Your task to perform on an android device: What's on my calendar tomorrow? Image 0: 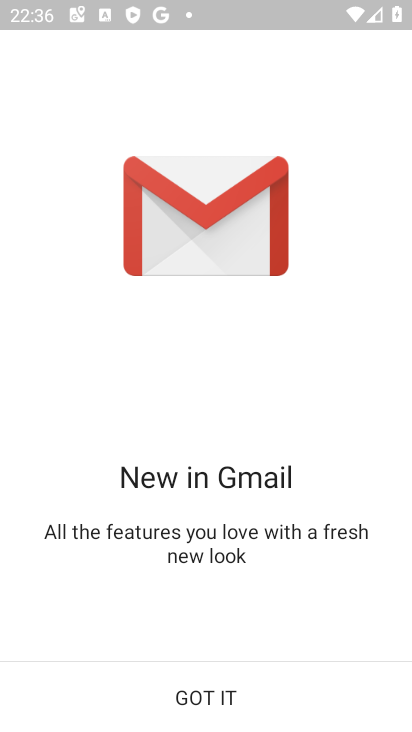
Step 0: press home button
Your task to perform on an android device: What's on my calendar tomorrow? Image 1: 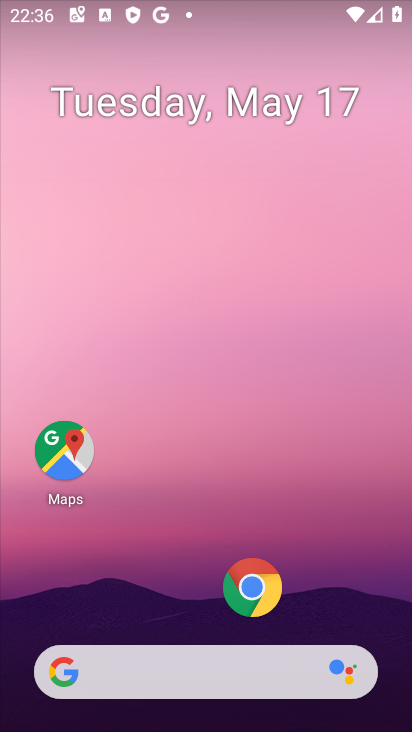
Step 1: drag from (351, 588) to (302, 261)
Your task to perform on an android device: What's on my calendar tomorrow? Image 2: 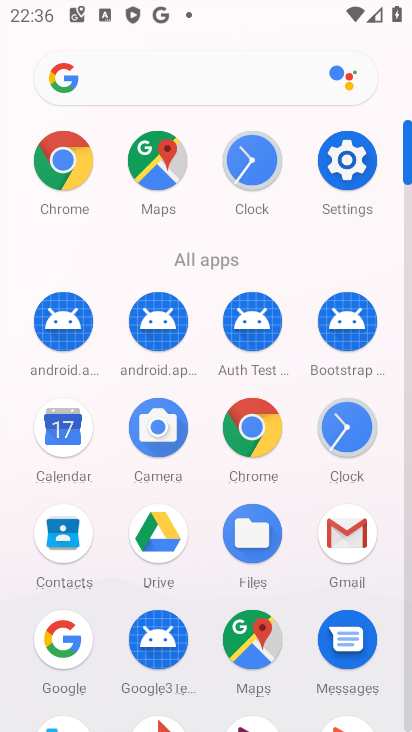
Step 2: click (60, 444)
Your task to perform on an android device: What's on my calendar tomorrow? Image 3: 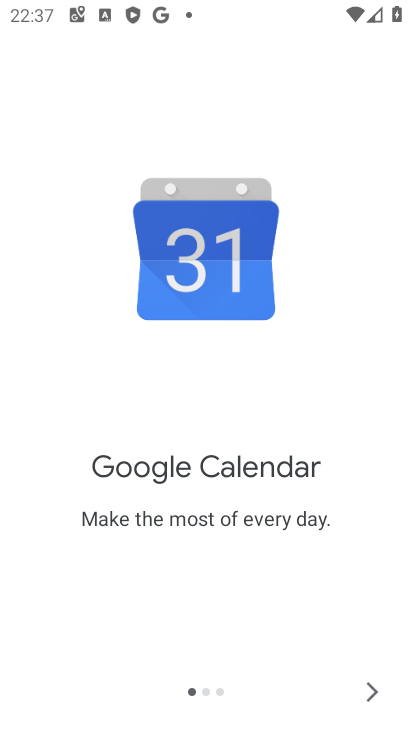
Step 3: click (373, 687)
Your task to perform on an android device: What's on my calendar tomorrow? Image 4: 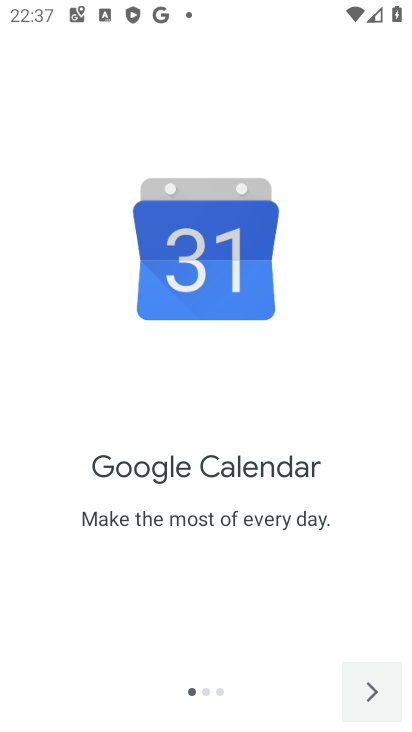
Step 4: click (373, 687)
Your task to perform on an android device: What's on my calendar tomorrow? Image 5: 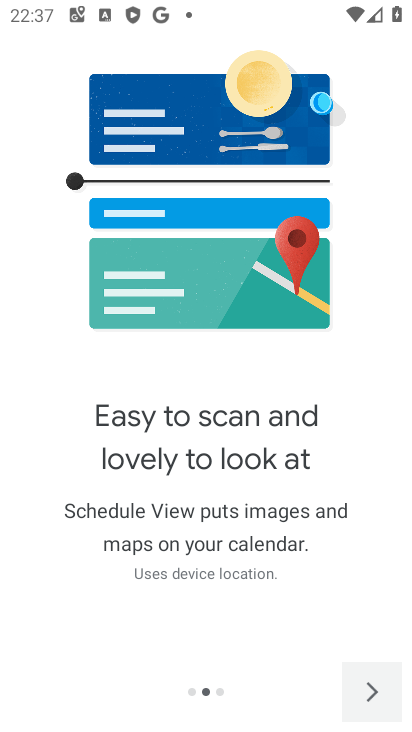
Step 5: click (373, 687)
Your task to perform on an android device: What's on my calendar tomorrow? Image 6: 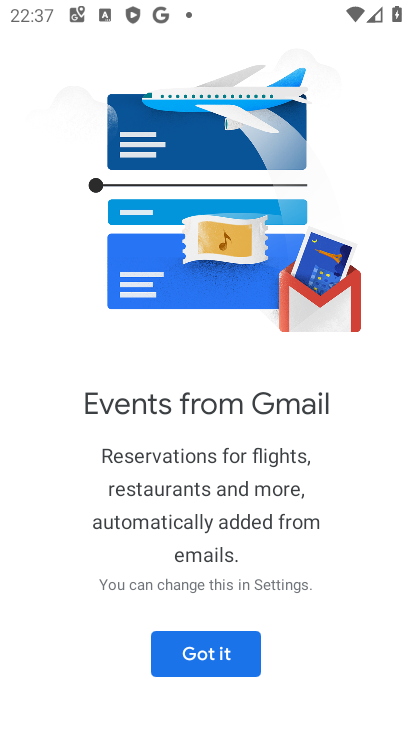
Step 6: click (373, 687)
Your task to perform on an android device: What's on my calendar tomorrow? Image 7: 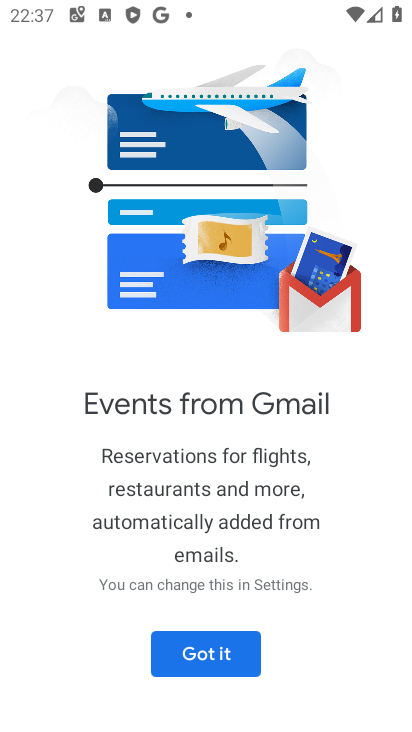
Step 7: click (373, 687)
Your task to perform on an android device: What's on my calendar tomorrow? Image 8: 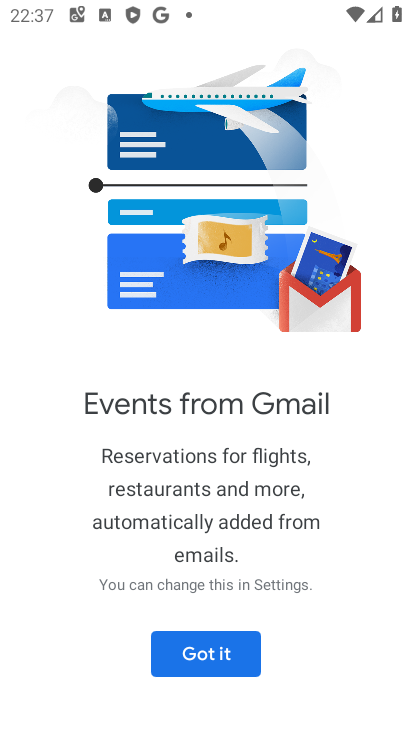
Step 8: click (373, 686)
Your task to perform on an android device: What's on my calendar tomorrow? Image 9: 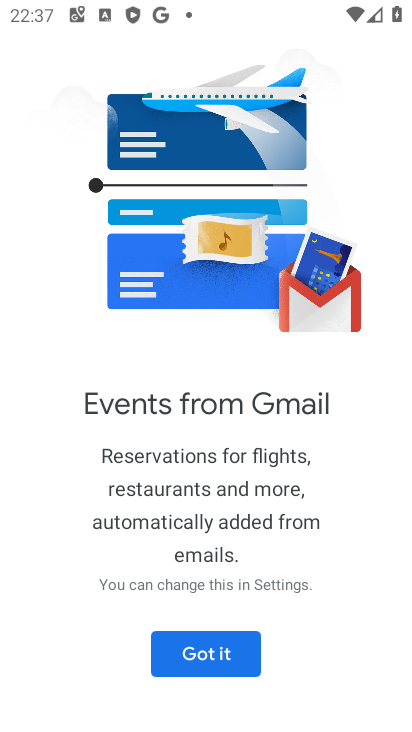
Step 9: click (204, 666)
Your task to perform on an android device: What's on my calendar tomorrow? Image 10: 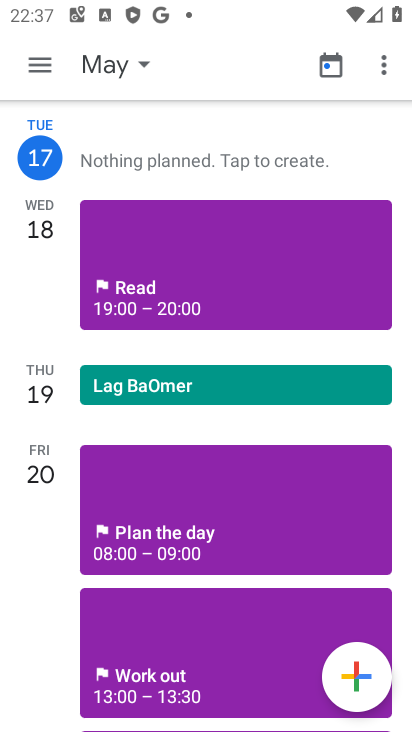
Step 10: click (205, 665)
Your task to perform on an android device: What's on my calendar tomorrow? Image 11: 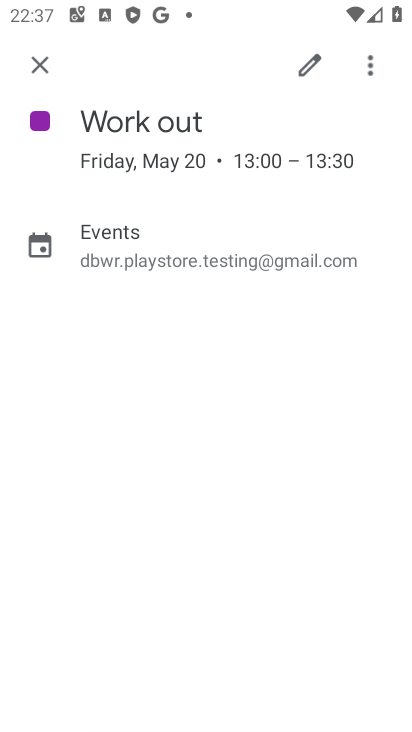
Step 11: press back button
Your task to perform on an android device: What's on my calendar tomorrow? Image 12: 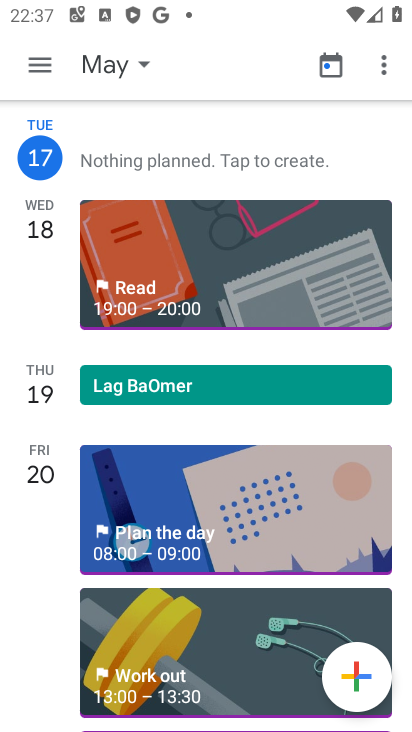
Step 12: click (314, 280)
Your task to perform on an android device: What's on my calendar tomorrow? Image 13: 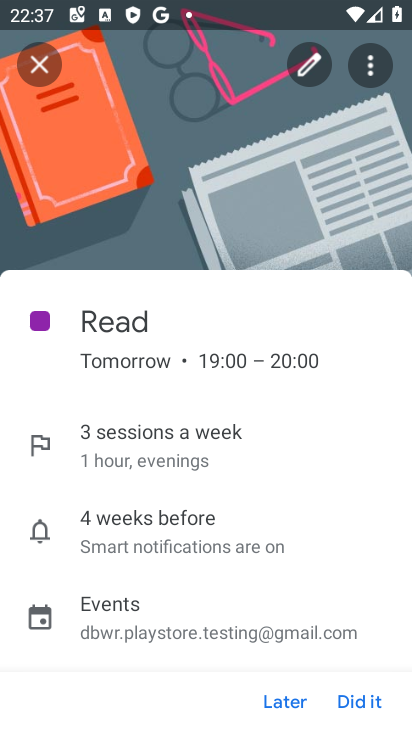
Step 13: click (280, 398)
Your task to perform on an android device: What's on my calendar tomorrow? Image 14: 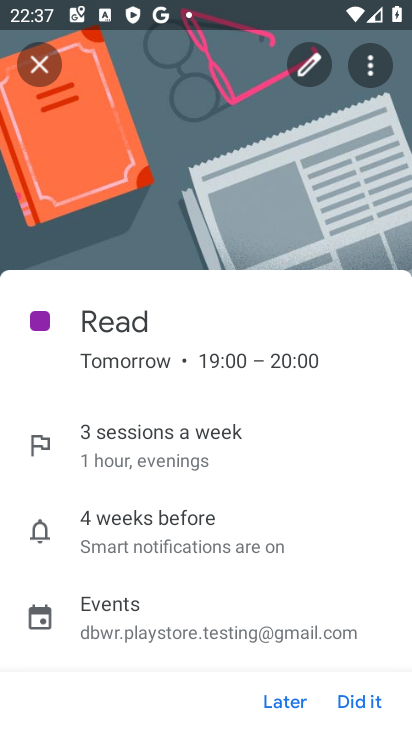
Step 14: task complete